Your task to perform on an android device: Go to Amazon Image 0: 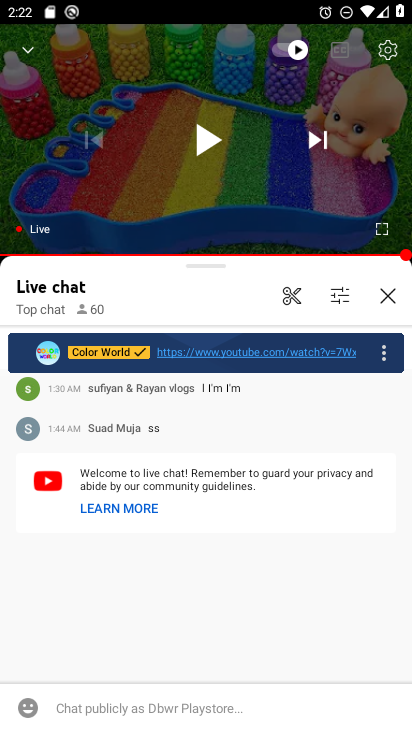
Step 0: press home button
Your task to perform on an android device: Go to Amazon Image 1: 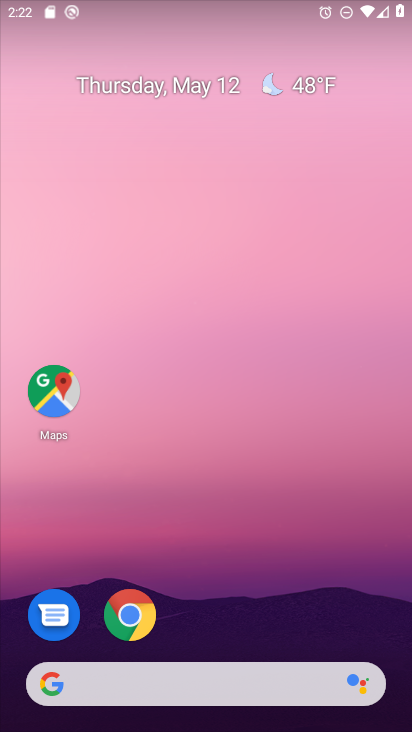
Step 1: drag from (213, 654) to (283, 26)
Your task to perform on an android device: Go to Amazon Image 2: 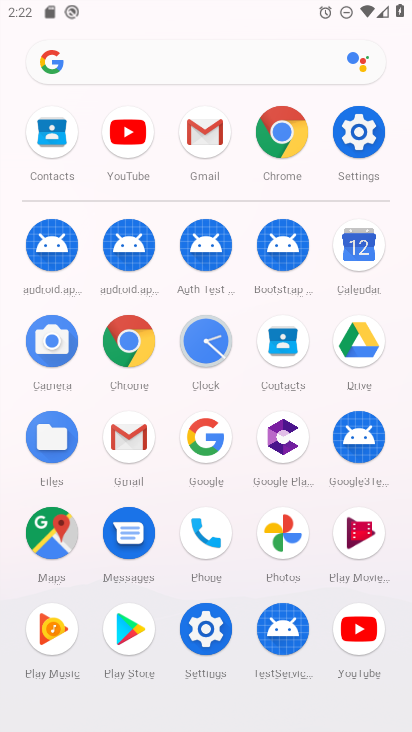
Step 2: click (139, 342)
Your task to perform on an android device: Go to Amazon Image 3: 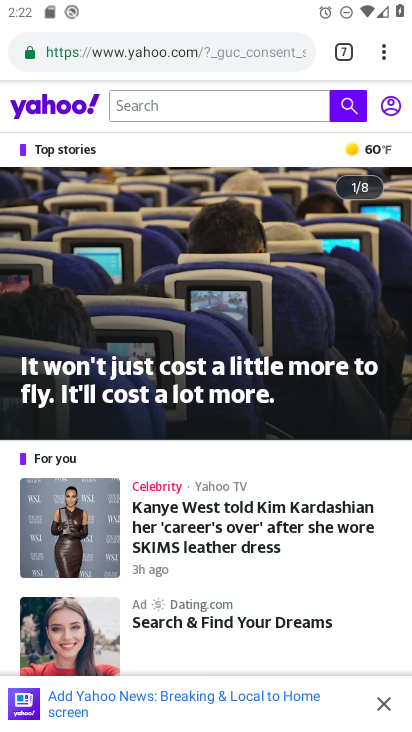
Step 3: click (383, 57)
Your task to perform on an android device: Go to Amazon Image 4: 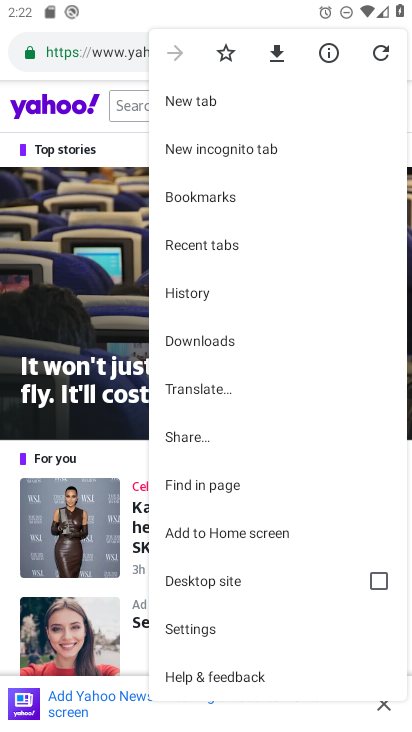
Step 4: click (241, 105)
Your task to perform on an android device: Go to Amazon Image 5: 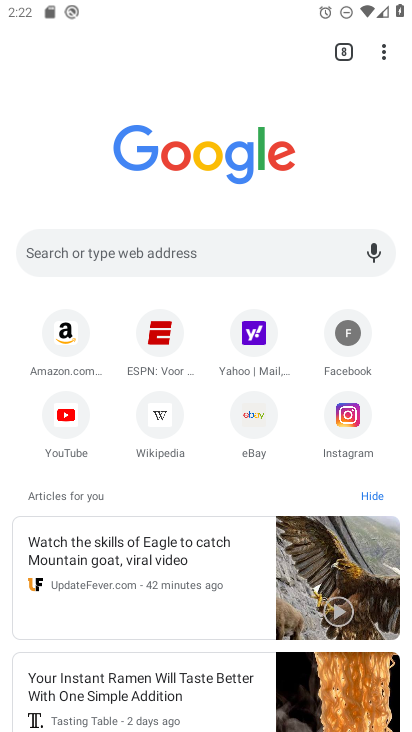
Step 5: click (54, 329)
Your task to perform on an android device: Go to Amazon Image 6: 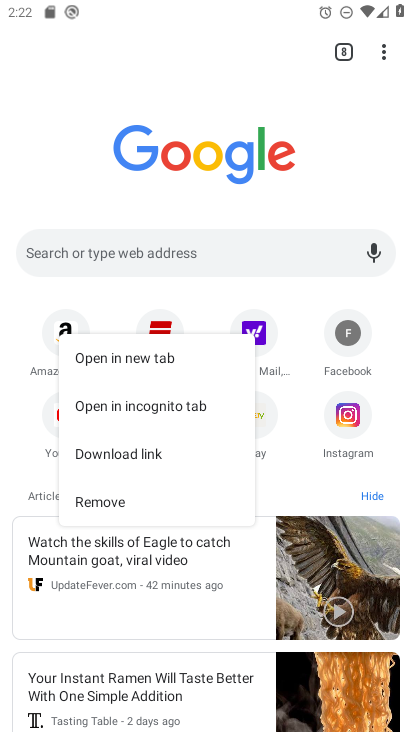
Step 6: click (50, 338)
Your task to perform on an android device: Go to Amazon Image 7: 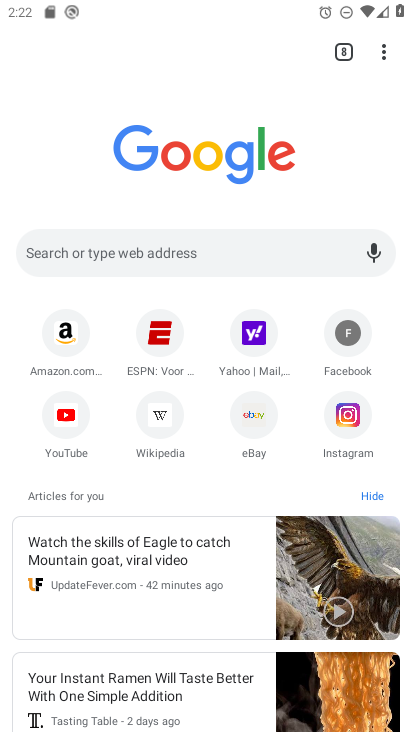
Step 7: click (57, 333)
Your task to perform on an android device: Go to Amazon Image 8: 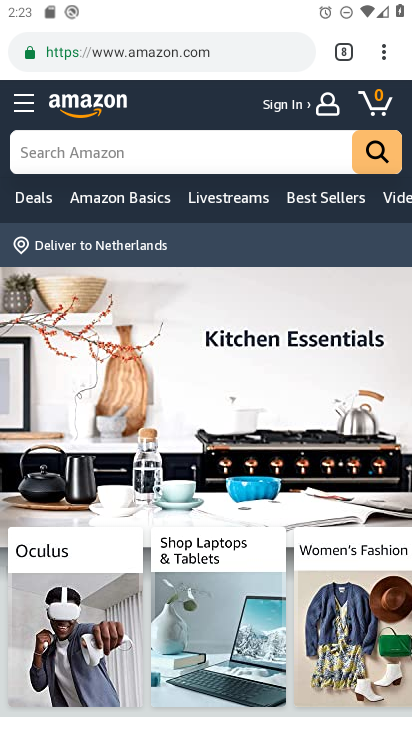
Step 8: task complete